Your task to perform on an android device: Open notification settings Image 0: 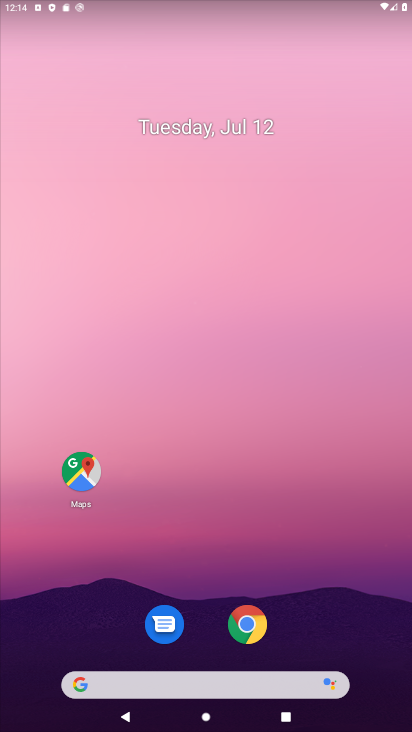
Step 0: drag from (198, 624) to (179, 221)
Your task to perform on an android device: Open notification settings Image 1: 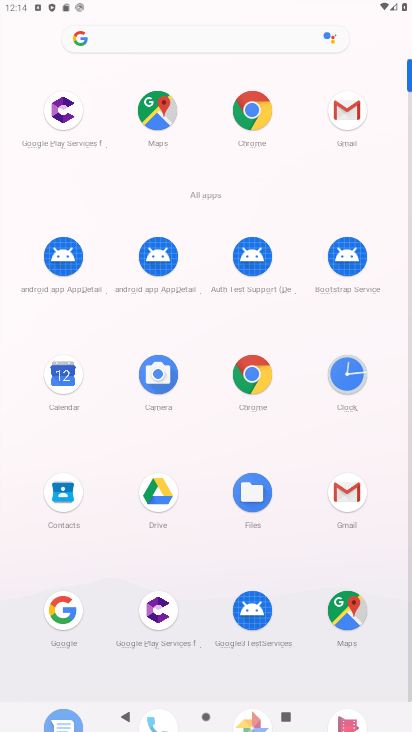
Step 1: drag from (234, 540) to (257, 163)
Your task to perform on an android device: Open notification settings Image 2: 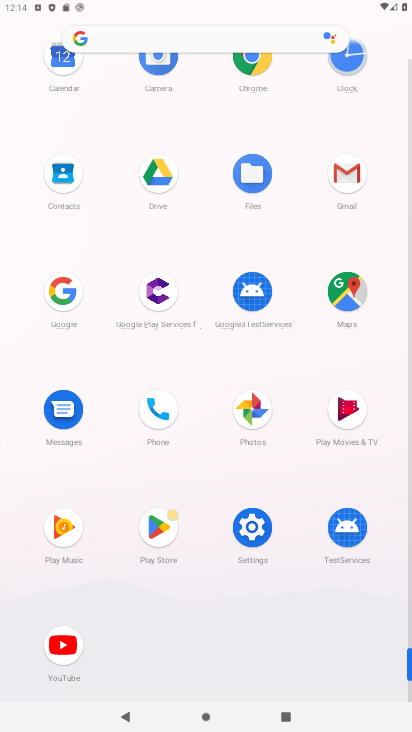
Step 2: click (261, 526)
Your task to perform on an android device: Open notification settings Image 3: 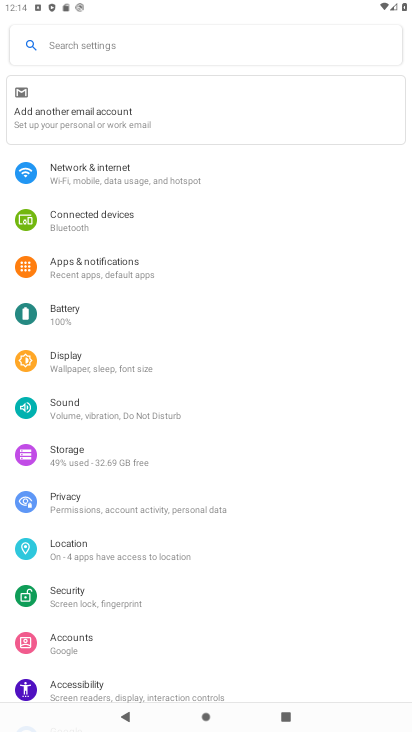
Step 3: click (169, 273)
Your task to perform on an android device: Open notification settings Image 4: 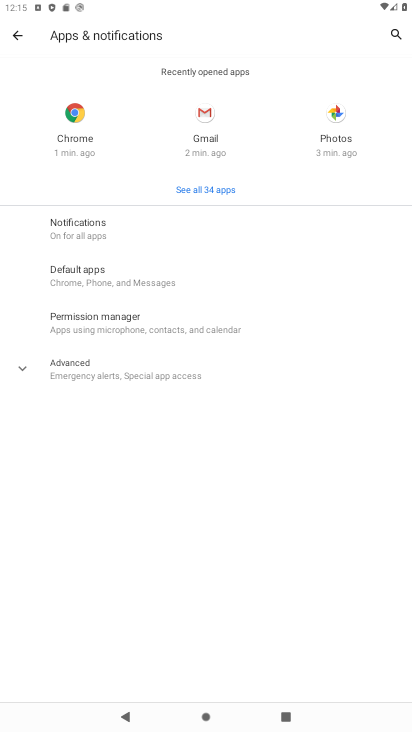
Step 4: click (123, 233)
Your task to perform on an android device: Open notification settings Image 5: 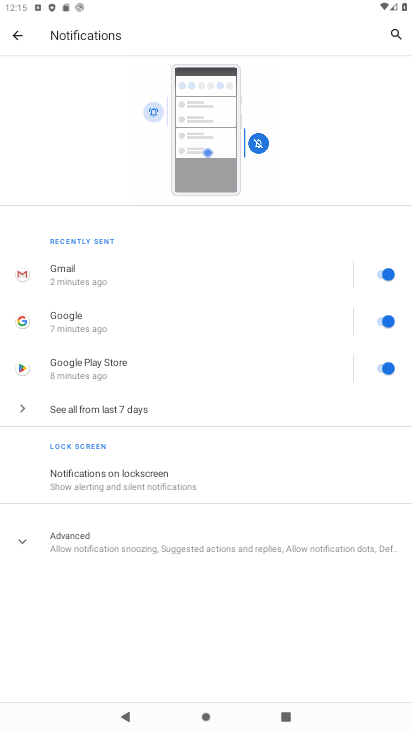
Step 5: task complete